Your task to perform on an android device: turn off smart reply in the gmail app Image 0: 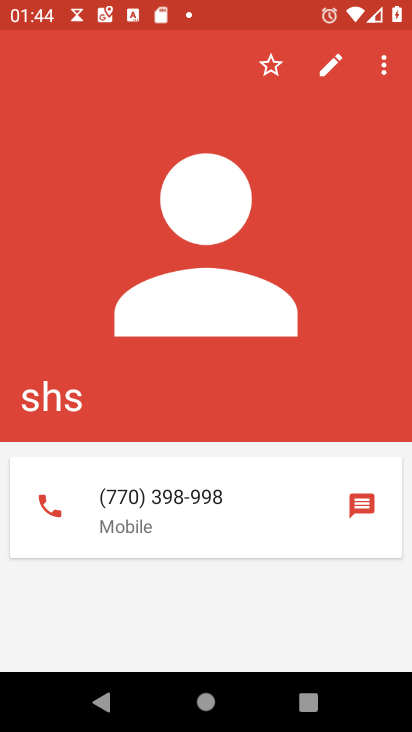
Step 0: press home button
Your task to perform on an android device: turn off smart reply in the gmail app Image 1: 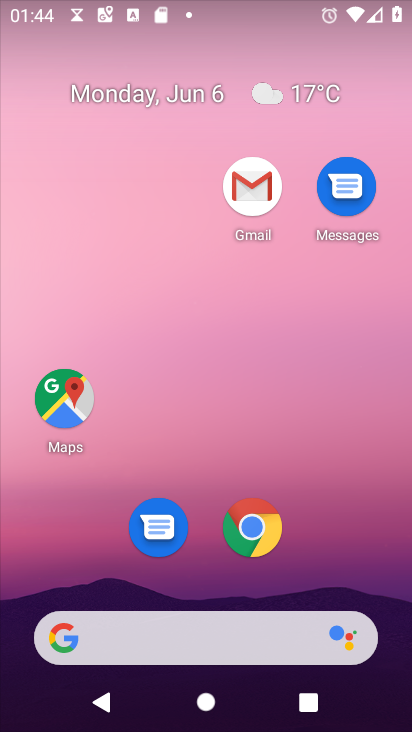
Step 1: drag from (335, 560) to (264, 59)
Your task to perform on an android device: turn off smart reply in the gmail app Image 2: 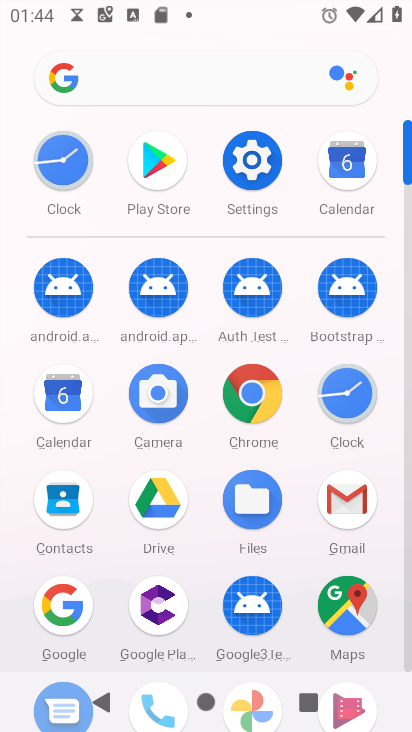
Step 2: click (334, 480)
Your task to perform on an android device: turn off smart reply in the gmail app Image 3: 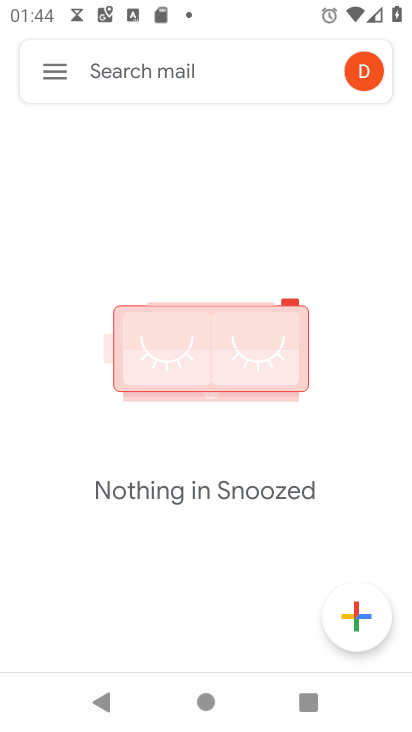
Step 3: click (52, 56)
Your task to perform on an android device: turn off smart reply in the gmail app Image 4: 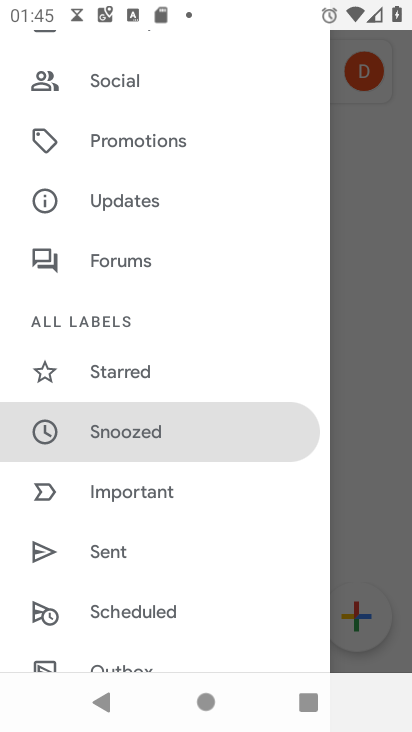
Step 4: drag from (142, 586) to (101, 15)
Your task to perform on an android device: turn off smart reply in the gmail app Image 5: 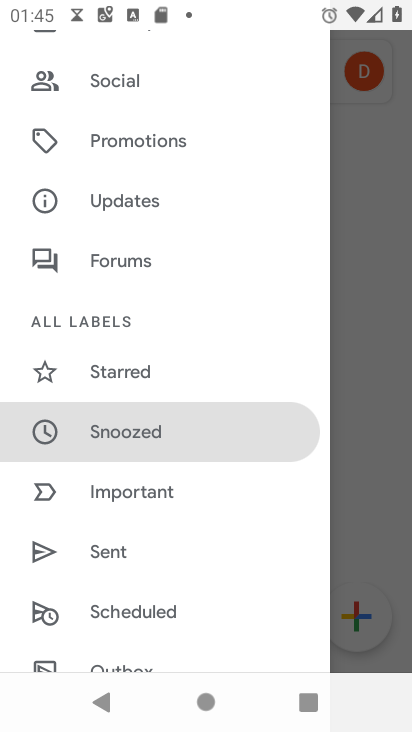
Step 5: drag from (129, 627) to (96, 51)
Your task to perform on an android device: turn off smart reply in the gmail app Image 6: 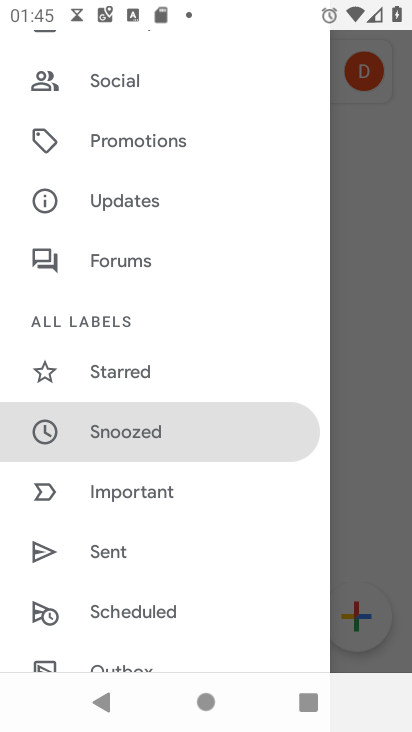
Step 6: drag from (111, 613) to (176, 185)
Your task to perform on an android device: turn off smart reply in the gmail app Image 7: 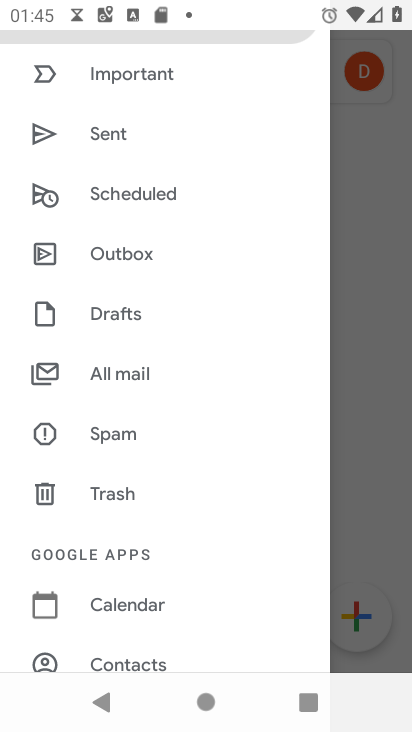
Step 7: drag from (127, 553) to (144, 71)
Your task to perform on an android device: turn off smart reply in the gmail app Image 8: 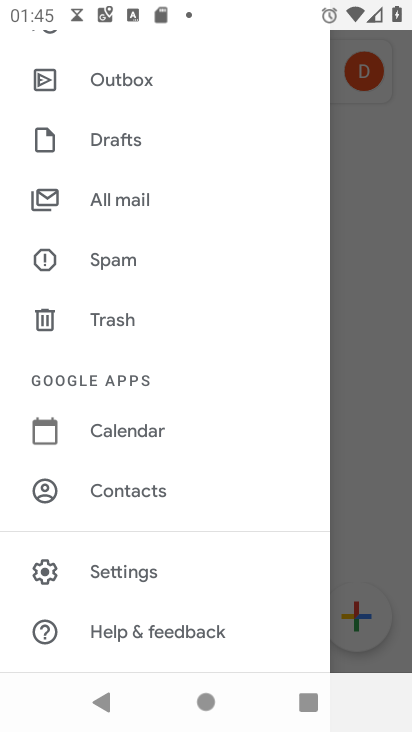
Step 8: click (122, 566)
Your task to perform on an android device: turn off smart reply in the gmail app Image 9: 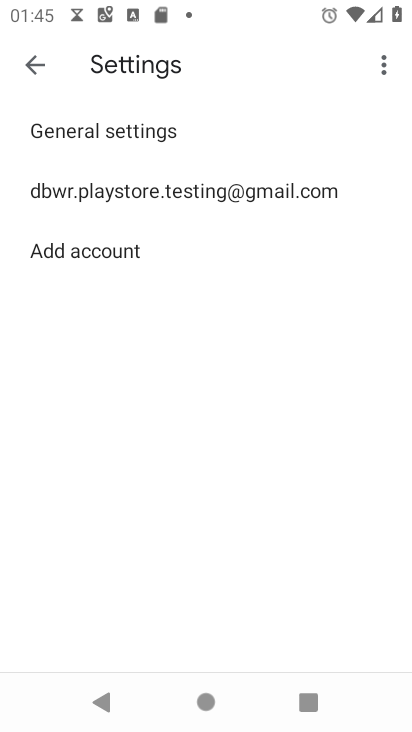
Step 9: click (136, 191)
Your task to perform on an android device: turn off smart reply in the gmail app Image 10: 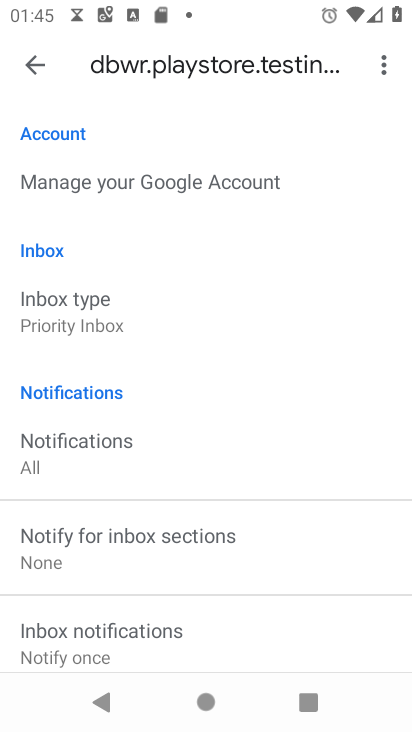
Step 10: task complete